Your task to perform on an android device: turn on airplane mode Image 0: 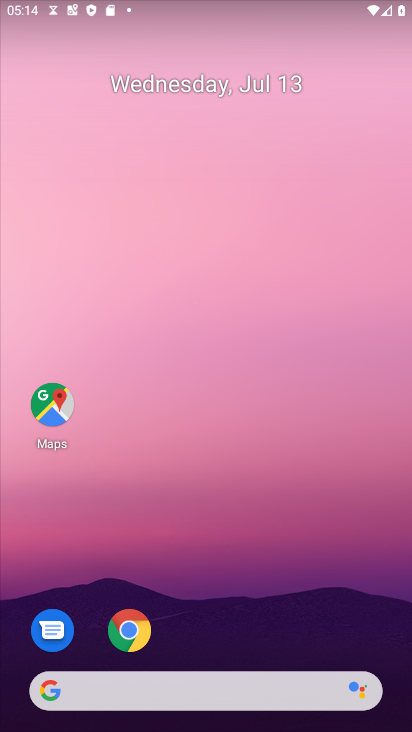
Step 0: drag from (266, 695) to (359, 64)
Your task to perform on an android device: turn on airplane mode Image 1: 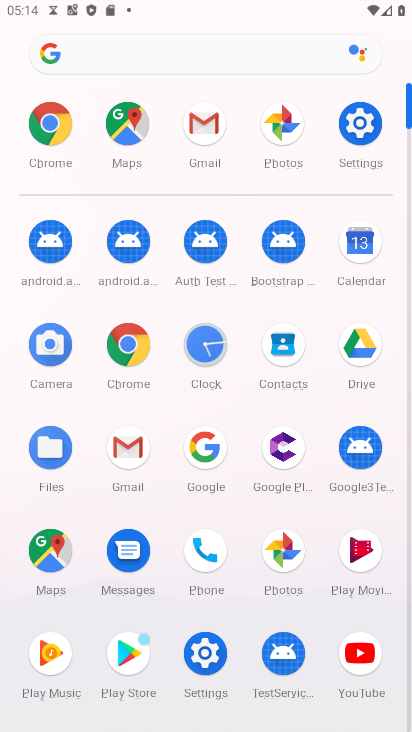
Step 1: click (358, 123)
Your task to perform on an android device: turn on airplane mode Image 2: 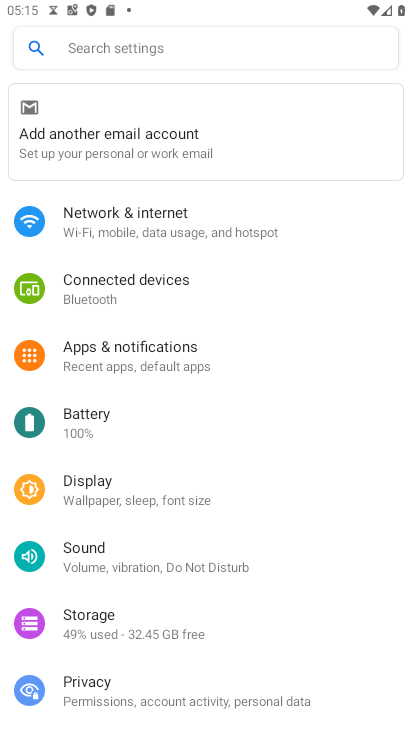
Step 2: click (167, 220)
Your task to perform on an android device: turn on airplane mode Image 3: 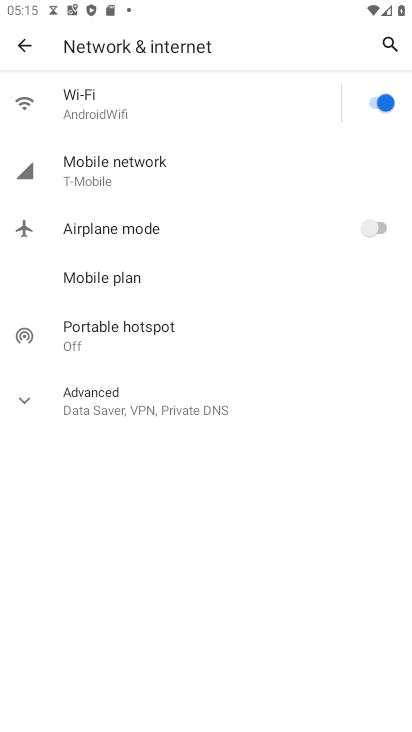
Step 3: click (386, 225)
Your task to perform on an android device: turn on airplane mode Image 4: 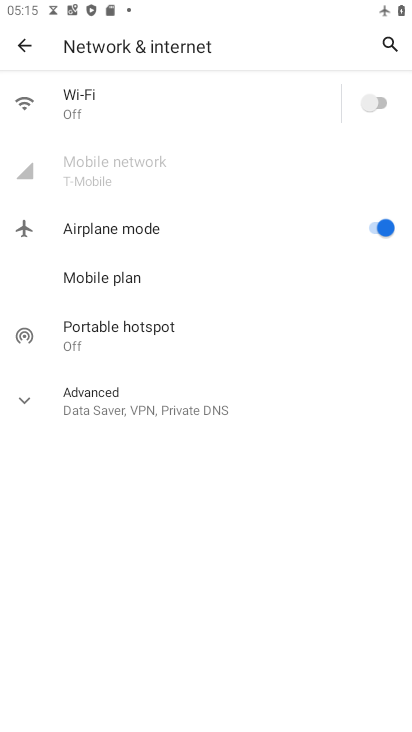
Step 4: task complete